Your task to perform on an android device: turn off picture-in-picture Image 0: 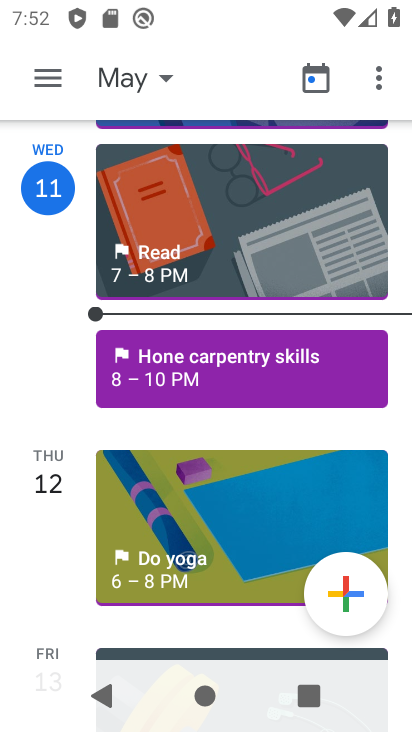
Step 0: press home button
Your task to perform on an android device: turn off picture-in-picture Image 1: 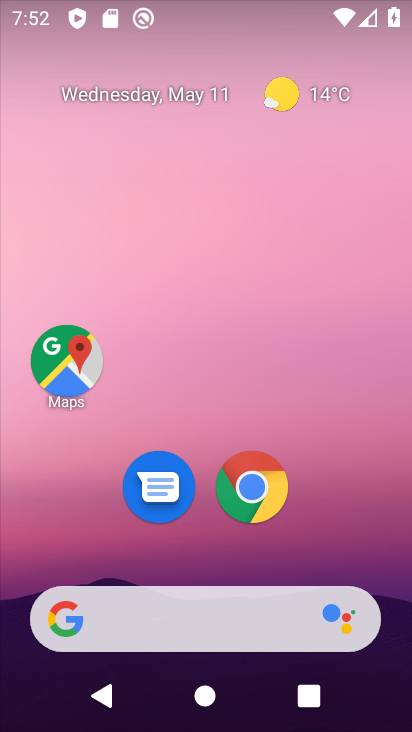
Step 1: click (251, 484)
Your task to perform on an android device: turn off picture-in-picture Image 2: 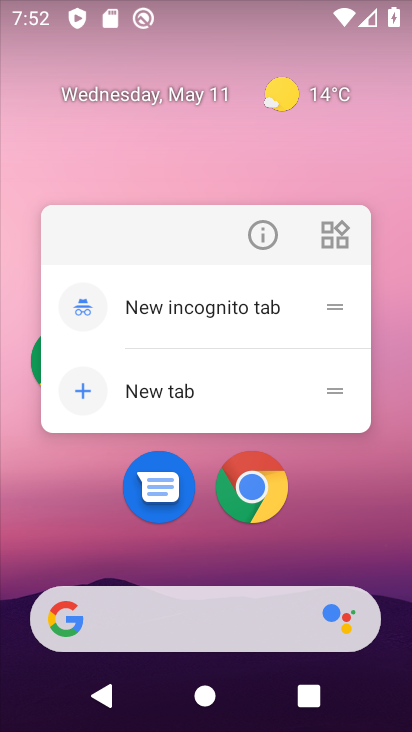
Step 2: click (268, 236)
Your task to perform on an android device: turn off picture-in-picture Image 3: 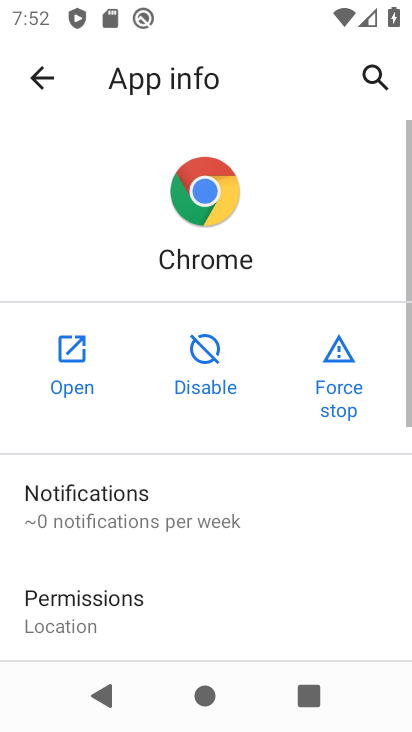
Step 3: drag from (269, 620) to (266, 250)
Your task to perform on an android device: turn off picture-in-picture Image 4: 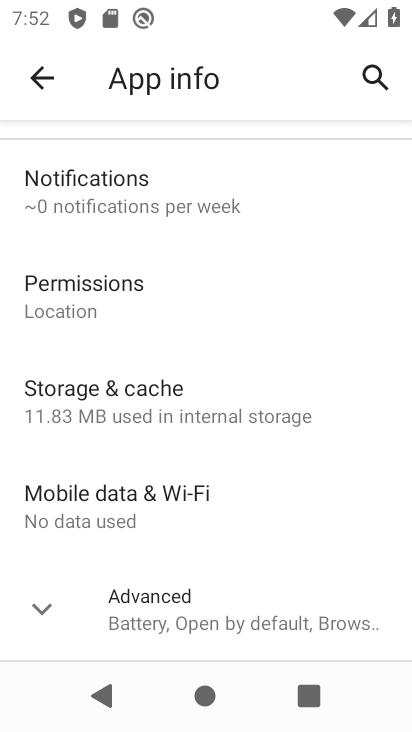
Step 4: click (182, 615)
Your task to perform on an android device: turn off picture-in-picture Image 5: 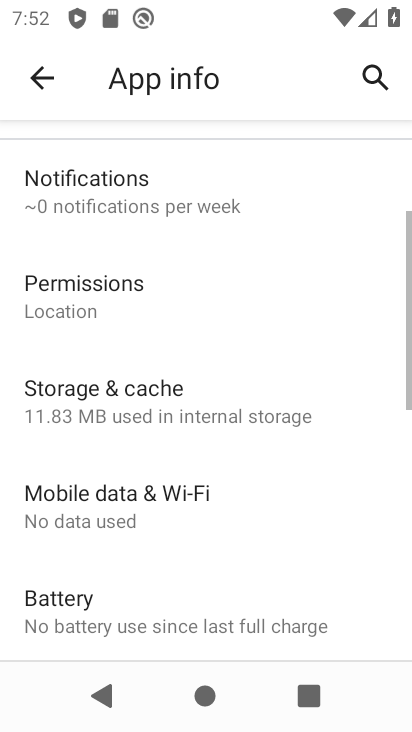
Step 5: drag from (285, 644) to (395, 274)
Your task to perform on an android device: turn off picture-in-picture Image 6: 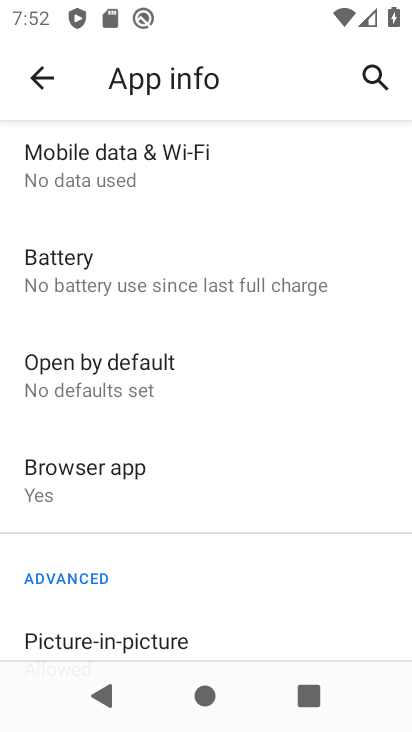
Step 6: drag from (259, 632) to (314, 297)
Your task to perform on an android device: turn off picture-in-picture Image 7: 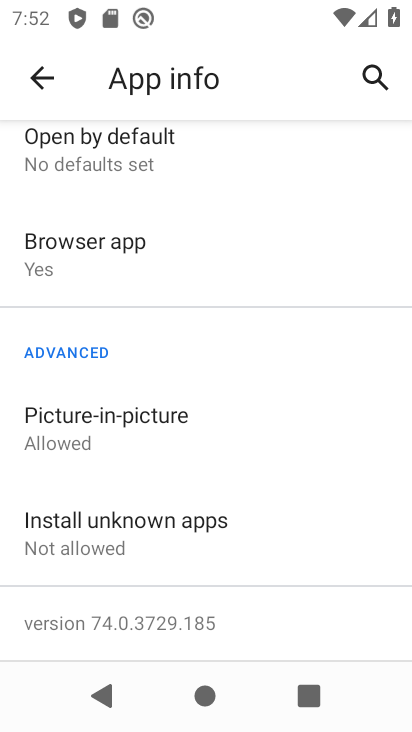
Step 7: click (111, 430)
Your task to perform on an android device: turn off picture-in-picture Image 8: 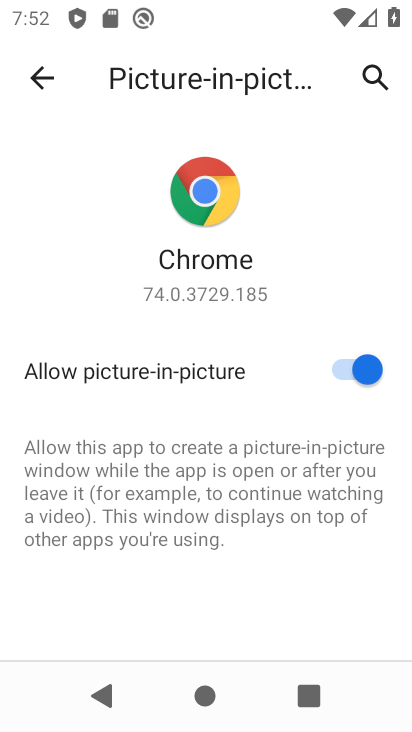
Step 8: click (341, 371)
Your task to perform on an android device: turn off picture-in-picture Image 9: 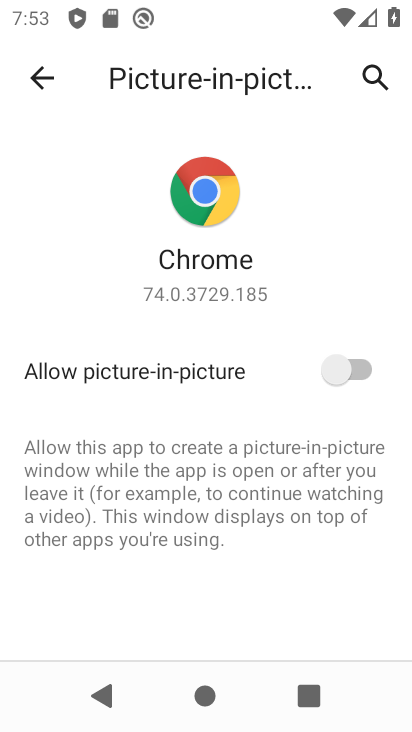
Step 9: task complete